Your task to perform on an android device: Open notification settings Image 0: 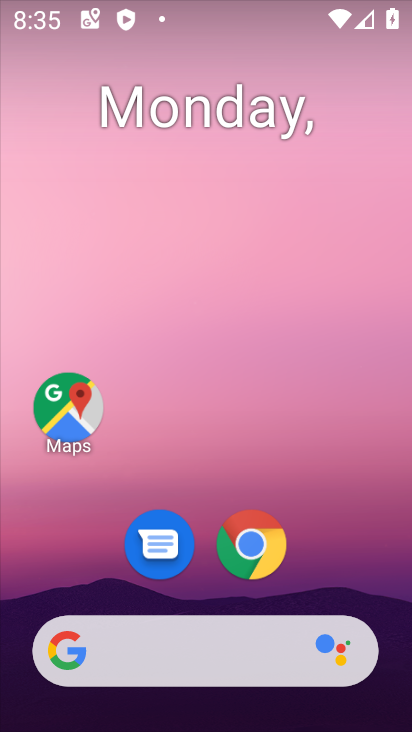
Step 0: drag from (350, 545) to (244, 58)
Your task to perform on an android device: Open notification settings Image 1: 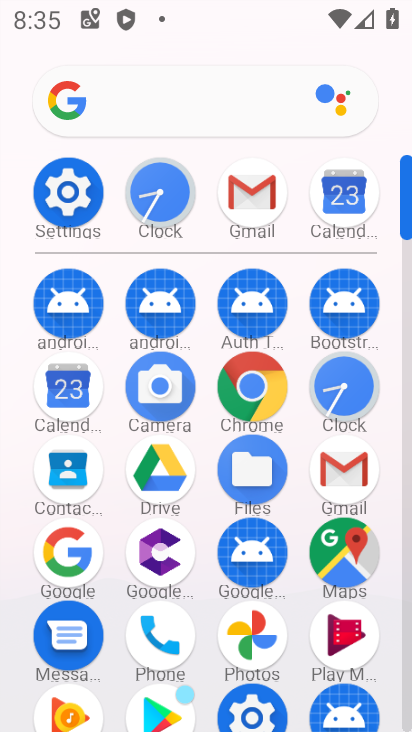
Step 1: click (68, 198)
Your task to perform on an android device: Open notification settings Image 2: 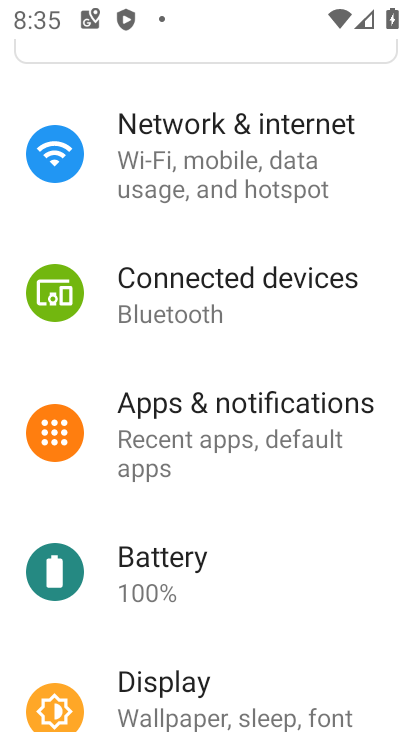
Step 2: click (247, 396)
Your task to perform on an android device: Open notification settings Image 3: 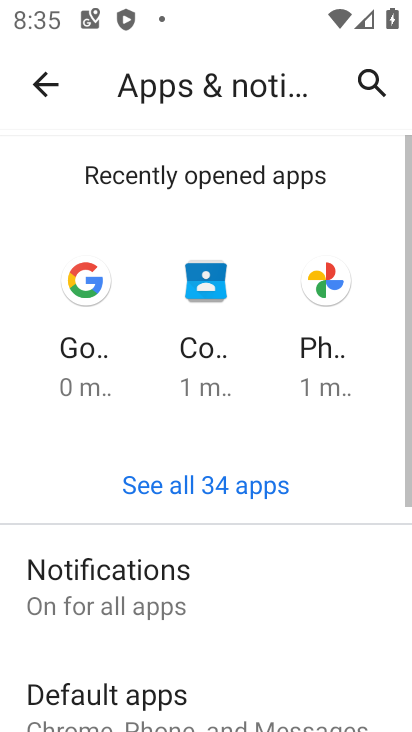
Step 3: task complete